Your task to perform on an android device: Go to battery settings Image 0: 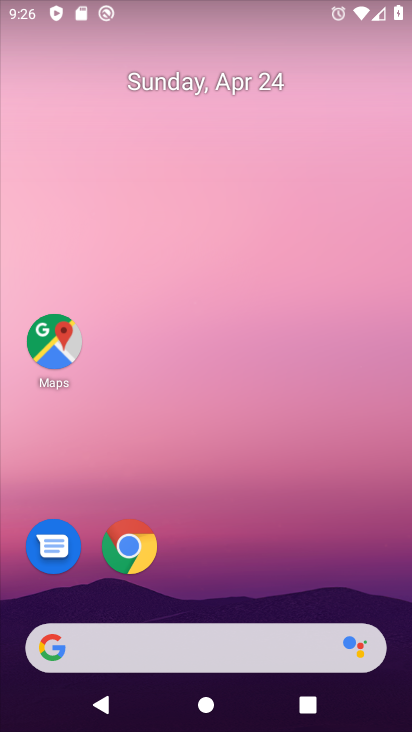
Step 0: drag from (238, 582) to (287, 27)
Your task to perform on an android device: Go to battery settings Image 1: 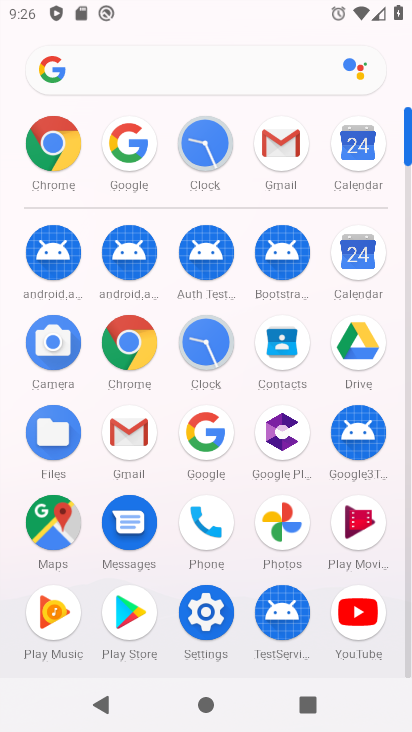
Step 1: click (205, 613)
Your task to perform on an android device: Go to battery settings Image 2: 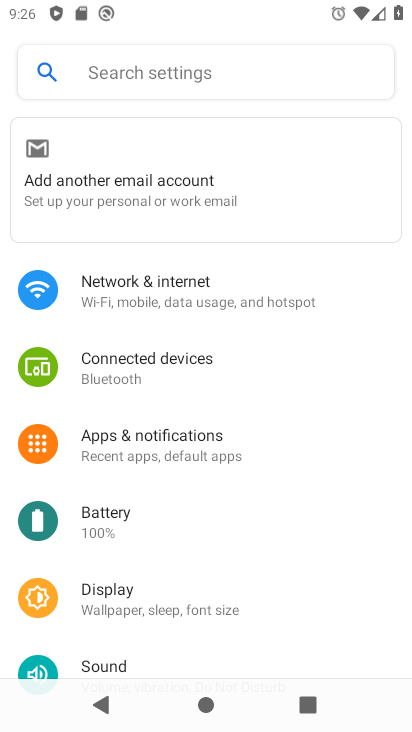
Step 2: click (132, 533)
Your task to perform on an android device: Go to battery settings Image 3: 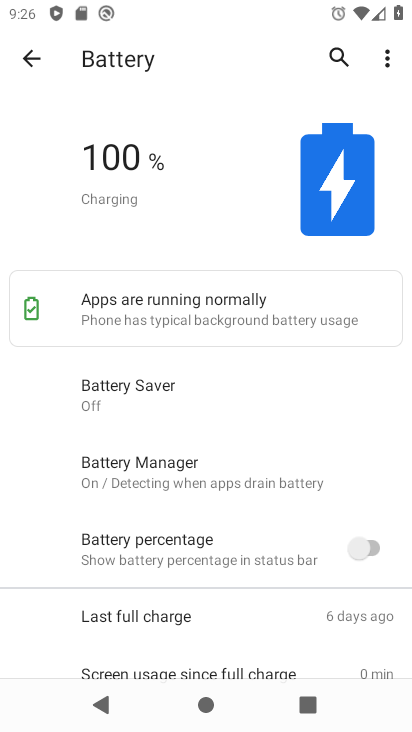
Step 3: task complete